Your task to perform on an android device: Go to Wikipedia Image 0: 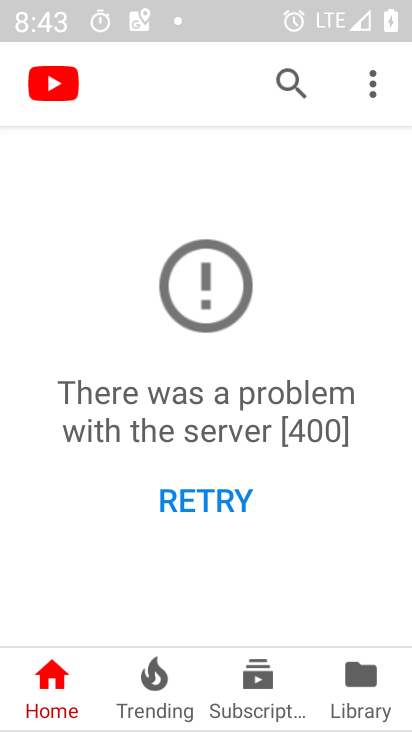
Step 0: press home button
Your task to perform on an android device: Go to Wikipedia Image 1: 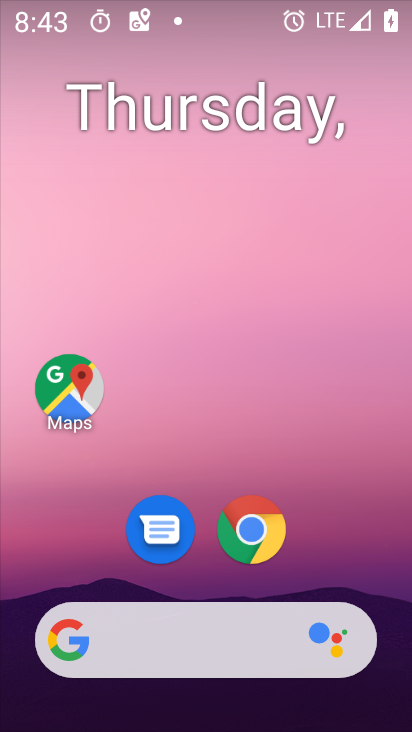
Step 1: drag from (394, 548) to (407, 360)
Your task to perform on an android device: Go to Wikipedia Image 2: 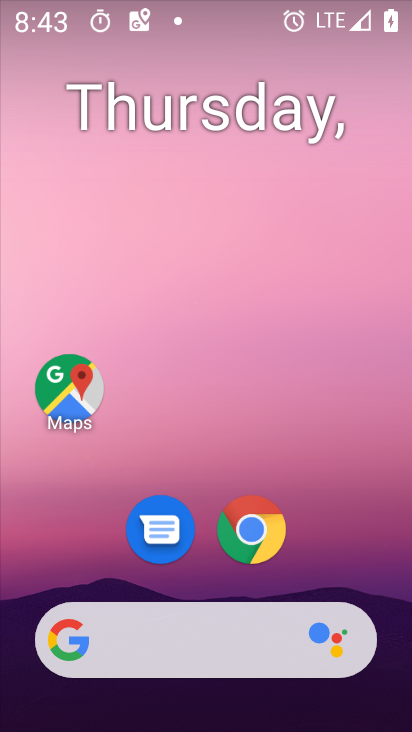
Step 2: drag from (375, 549) to (377, 167)
Your task to perform on an android device: Go to Wikipedia Image 3: 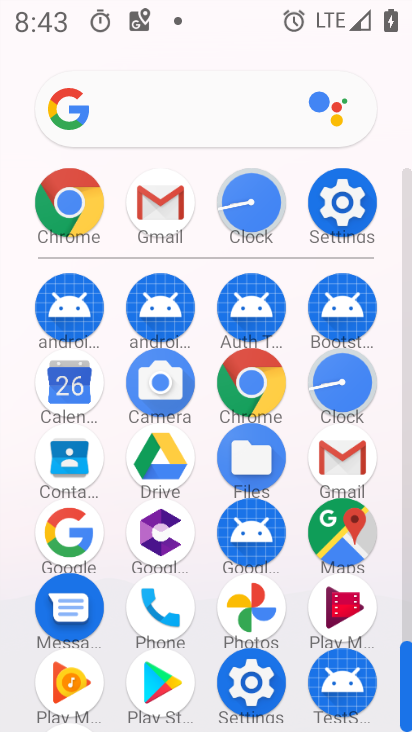
Step 3: click (261, 381)
Your task to perform on an android device: Go to Wikipedia Image 4: 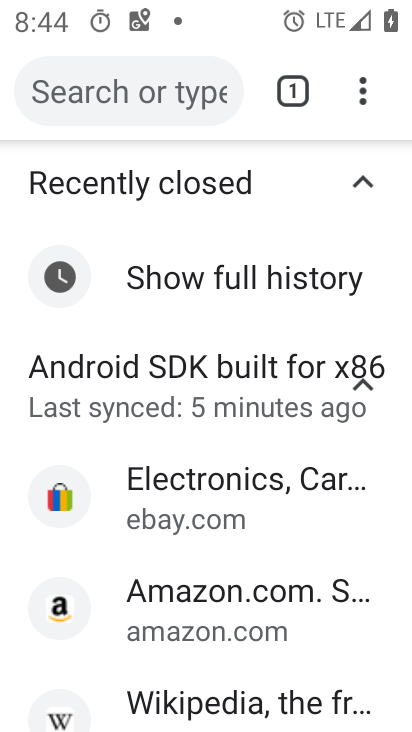
Step 4: click (182, 112)
Your task to perform on an android device: Go to Wikipedia Image 5: 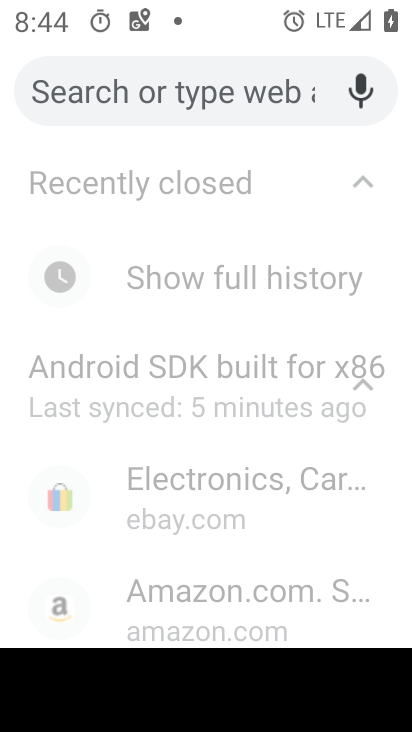
Step 5: type "wikipedia"
Your task to perform on an android device: Go to Wikipedia Image 6: 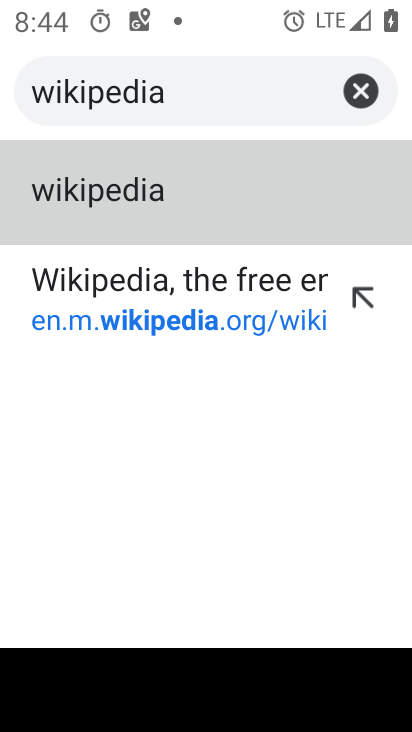
Step 6: click (233, 179)
Your task to perform on an android device: Go to Wikipedia Image 7: 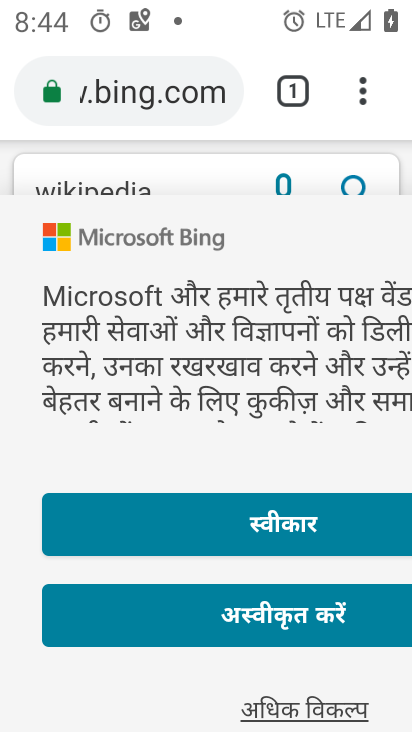
Step 7: task complete